Your task to perform on an android device: What's the weather? Image 0: 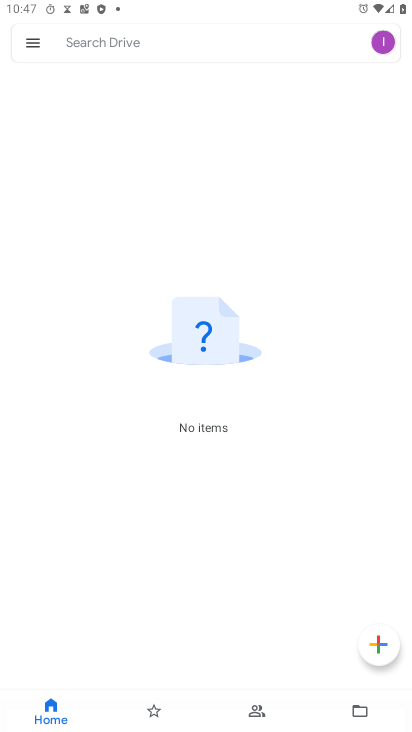
Step 0: press back button
Your task to perform on an android device: What's the weather? Image 1: 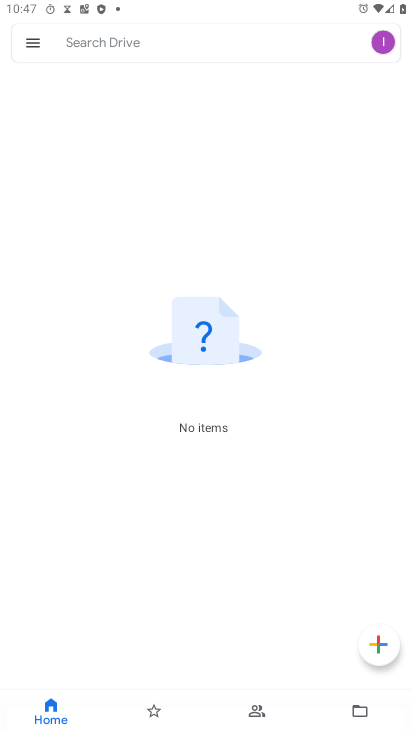
Step 1: press back button
Your task to perform on an android device: What's the weather? Image 2: 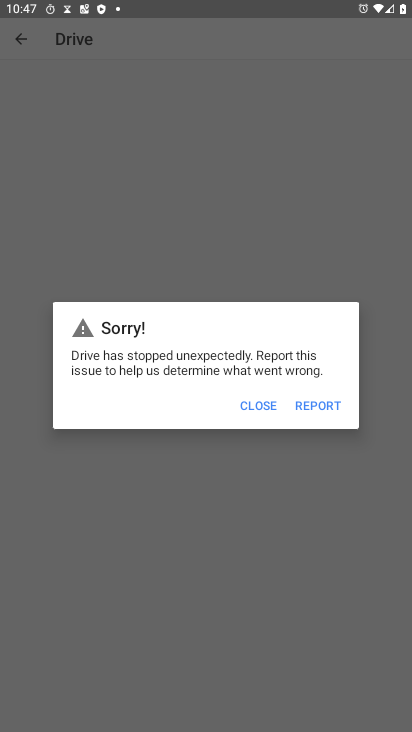
Step 2: click (247, 401)
Your task to perform on an android device: What's the weather? Image 3: 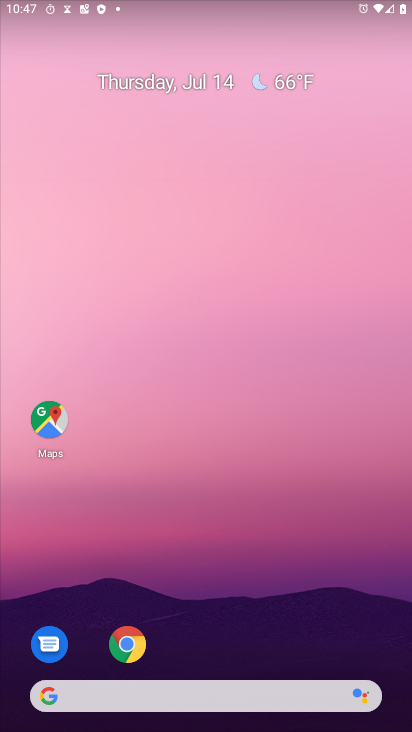
Step 3: drag from (242, 601) to (155, 108)
Your task to perform on an android device: What's the weather? Image 4: 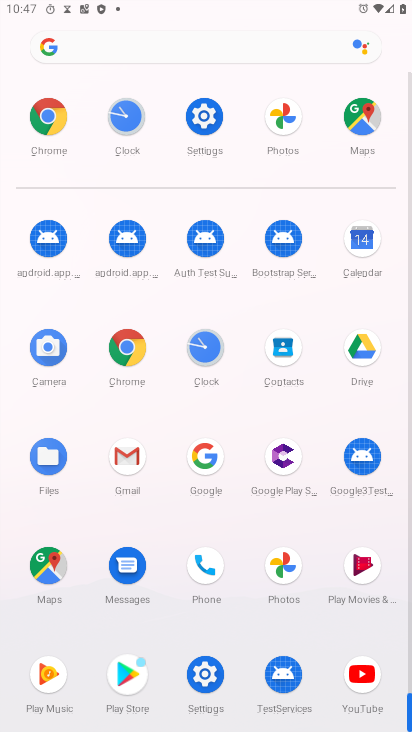
Step 4: click (43, 121)
Your task to perform on an android device: What's the weather? Image 5: 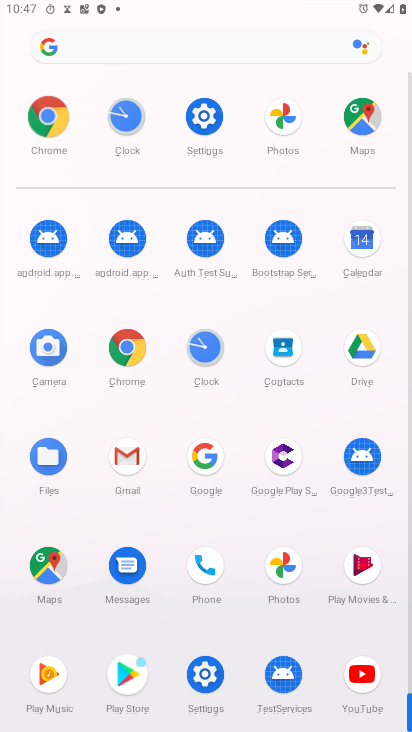
Step 5: click (43, 121)
Your task to perform on an android device: What's the weather? Image 6: 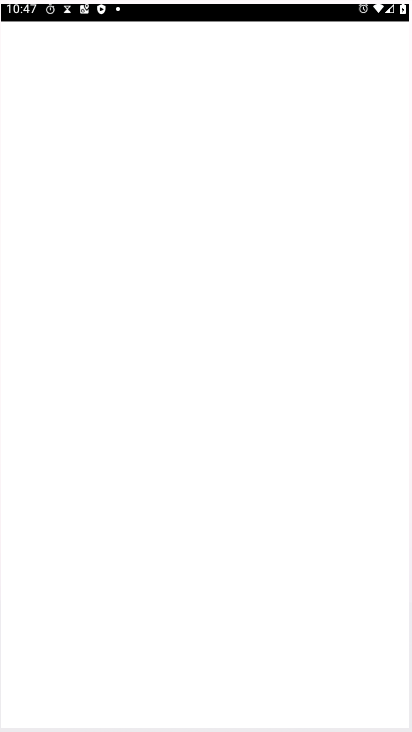
Step 6: click (53, 119)
Your task to perform on an android device: What's the weather? Image 7: 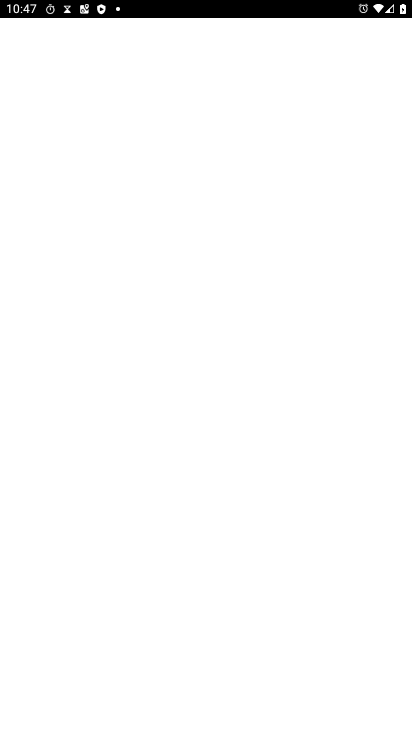
Step 7: click (54, 118)
Your task to perform on an android device: What's the weather? Image 8: 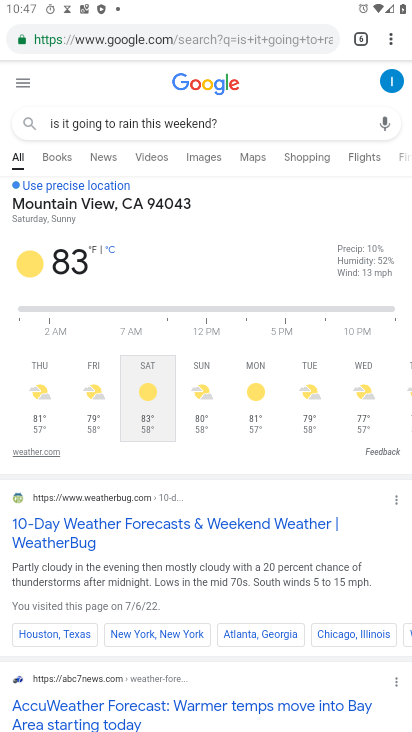
Step 8: drag from (388, 38) to (260, 78)
Your task to perform on an android device: What's the weather? Image 9: 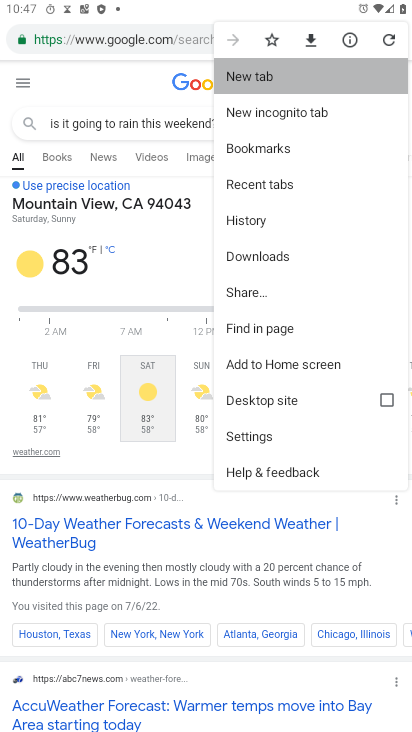
Step 9: click (260, 78)
Your task to perform on an android device: What's the weather? Image 10: 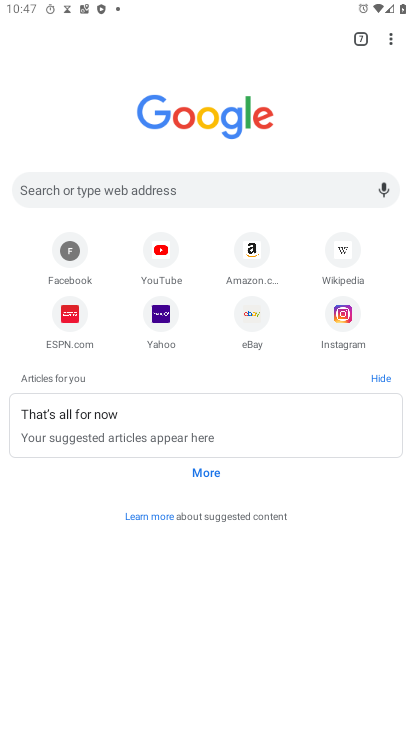
Step 10: click (59, 203)
Your task to perform on an android device: What's the weather? Image 11: 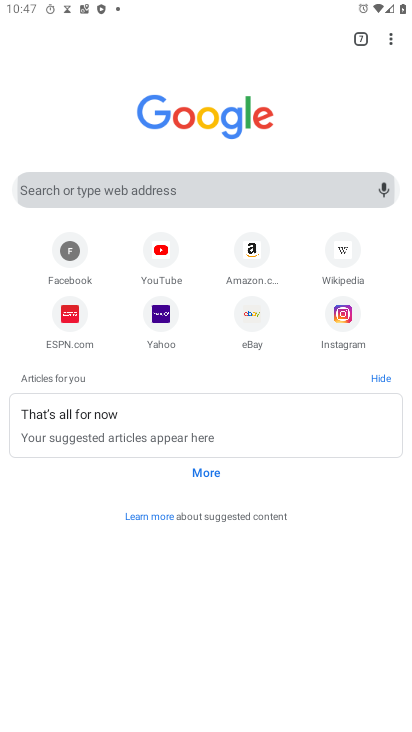
Step 11: click (57, 195)
Your task to perform on an android device: What's the weather? Image 12: 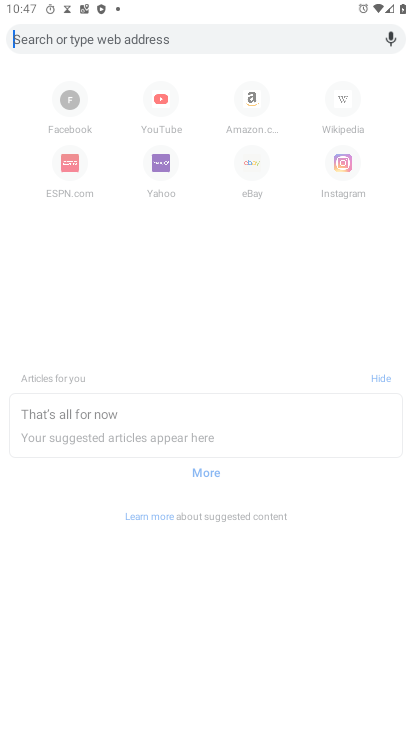
Step 12: click (57, 195)
Your task to perform on an android device: What's the weather? Image 13: 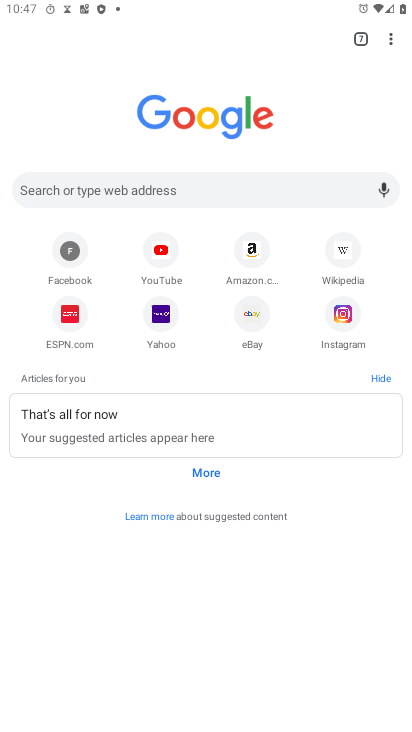
Step 13: type "weather?"
Your task to perform on an android device: What's the weather? Image 14: 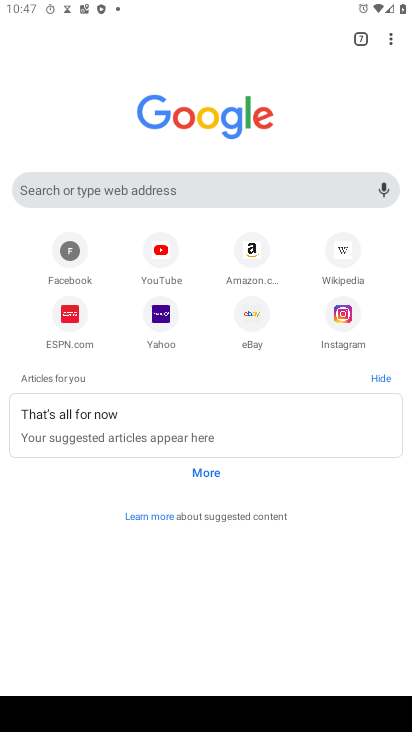
Step 14: click (86, 185)
Your task to perform on an android device: What's the weather? Image 15: 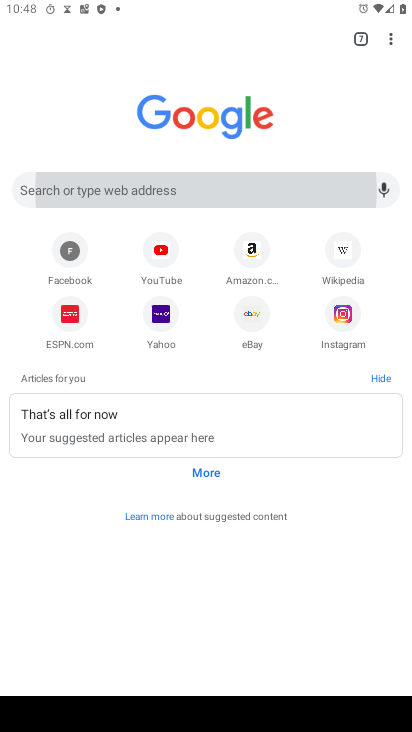
Step 15: click (82, 187)
Your task to perform on an android device: What's the weather? Image 16: 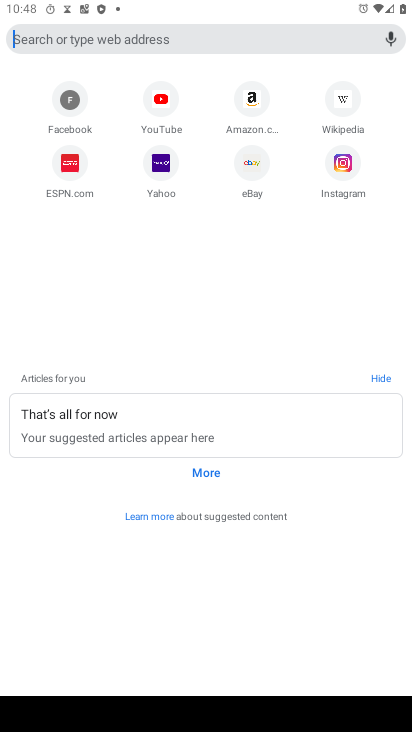
Step 16: click (82, 187)
Your task to perform on an android device: What's the weather? Image 17: 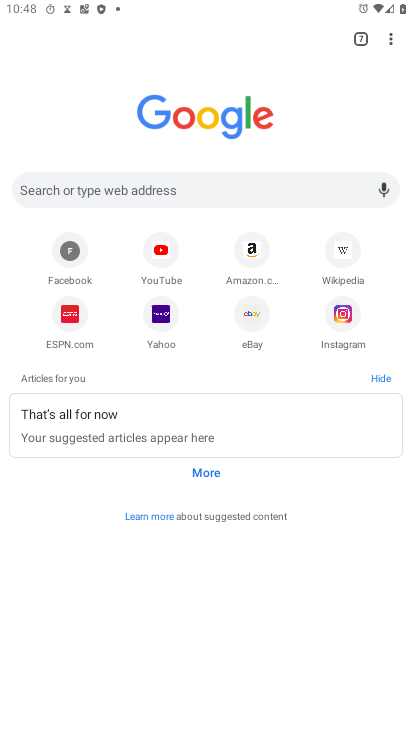
Step 17: click (62, 183)
Your task to perform on an android device: What's the weather? Image 18: 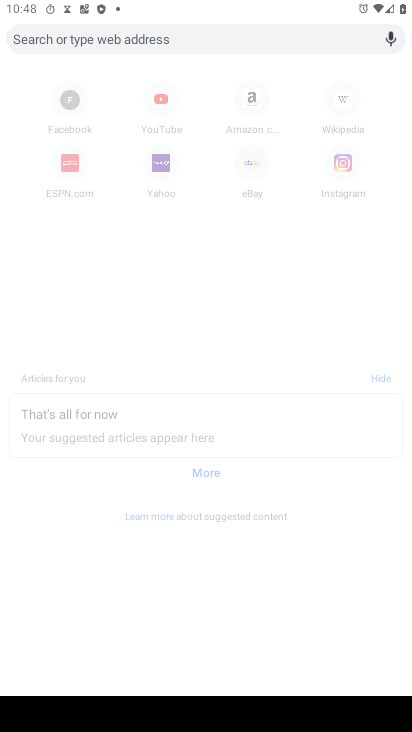
Step 18: type "weather?"
Your task to perform on an android device: What's the weather? Image 19: 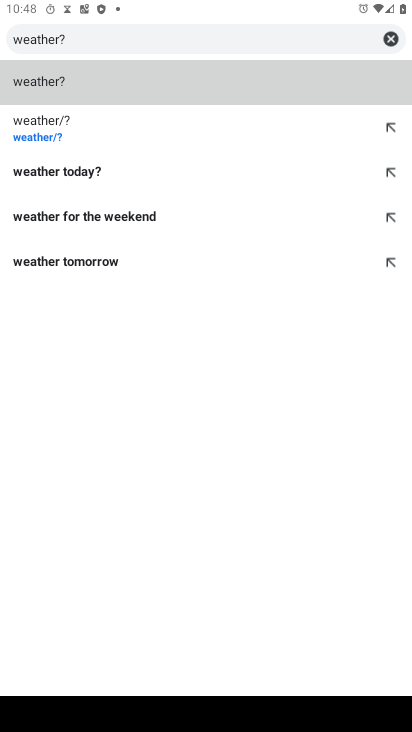
Step 19: click (59, 85)
Your task to perform on an android device: What's the weather? Image 20: 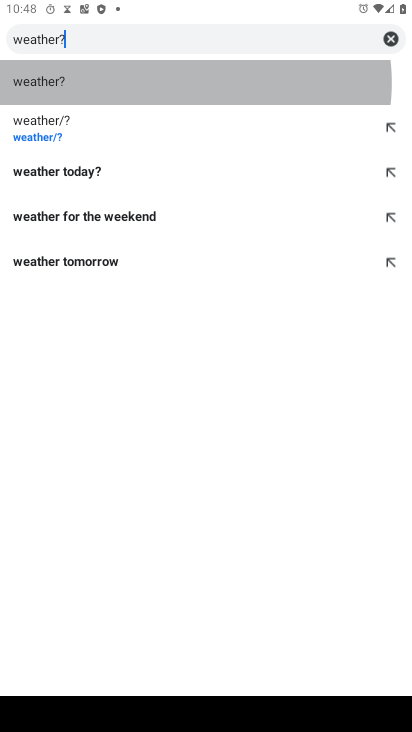
Step 20: click (59, 85)
Your task to perform on an android device: What's the weather? Image 21: 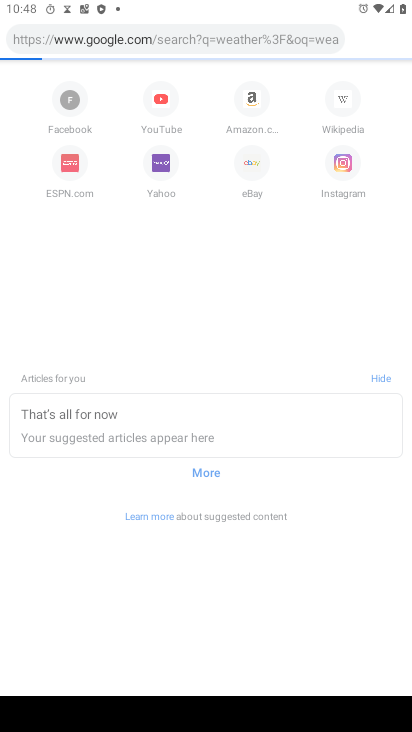
Step 21: click (59, 85)
Your task to perform on an android device: What's the weather? Image 22: 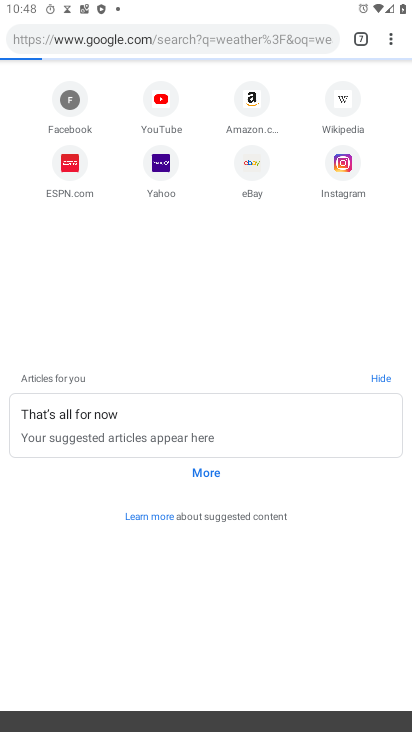
Step 22: click (59, 85)
Your task to perform on an android device: What's the weather? Image 23: 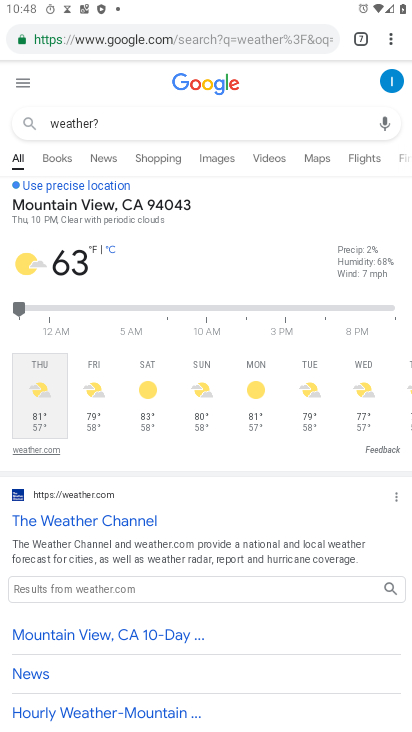
Step 23: task complete